Your task to perform on an android device: Open Reddit.com Image 0: 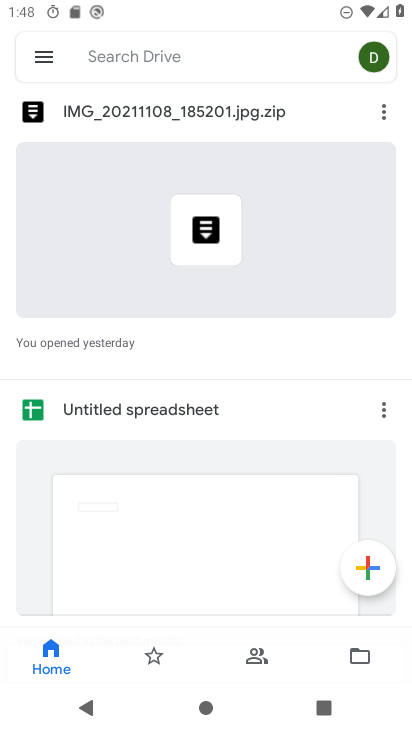
Step 0: press home button
Your task to perform on an android device: Open Reddit.com Image 1: 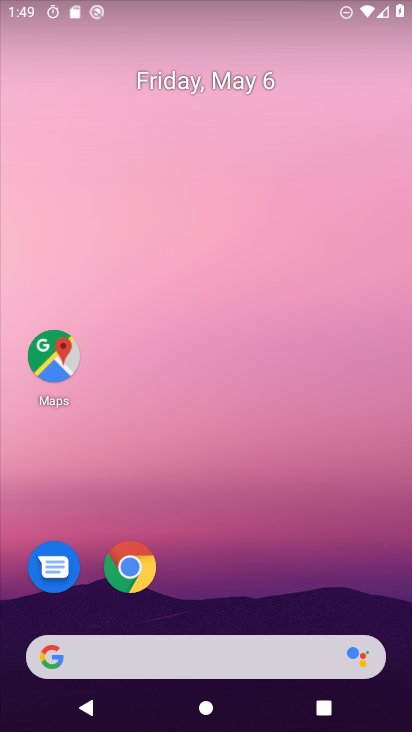
Step 1: click (134, 572)
Your task to perform on an android device: Open Reddit.com Image 2: 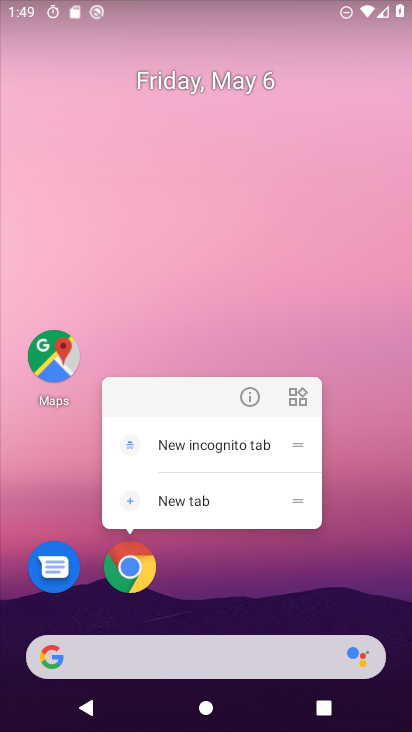
Step 2: click (139, 575)
Your task to perform on an android device: Open Reddit.com Image 3: 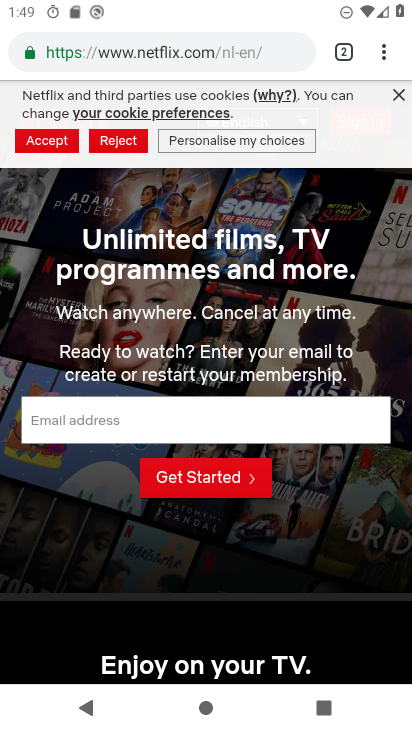
Step 3: click (124, 54)
Your task to perform on an android device: Open Reddit.com Image 4: 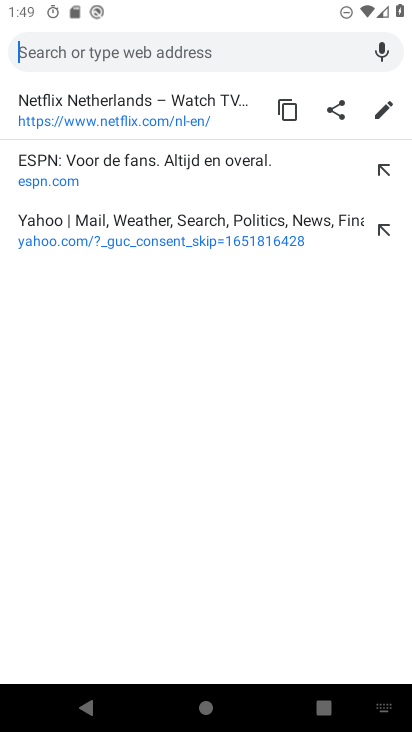
Step 4: type "reddit.com"
Your task to perform on an android device: Open Reddit.com Image 5: 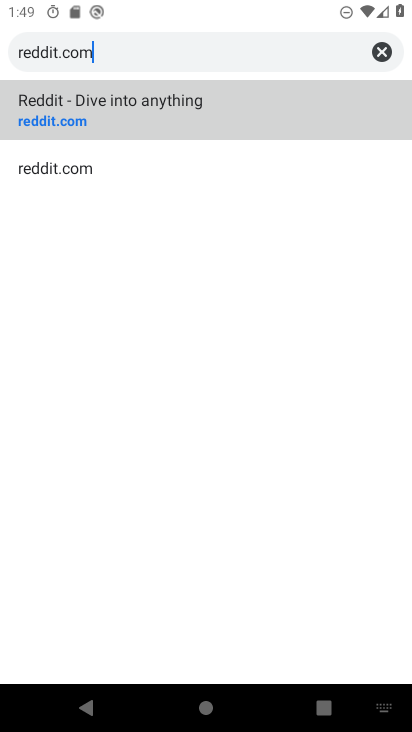
Step 5: click (37, 169)
Your task to perform on an android device: Open Reddit.com Image 6: 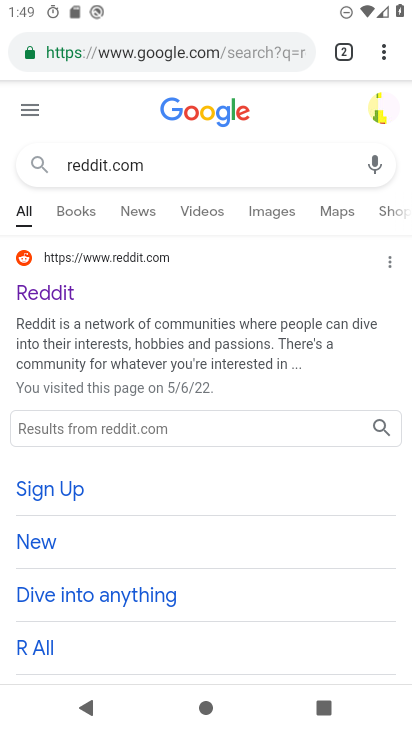
Step 6: click (41, 296)
Your task to perform on an android device: Open Reddit.com Image 7: 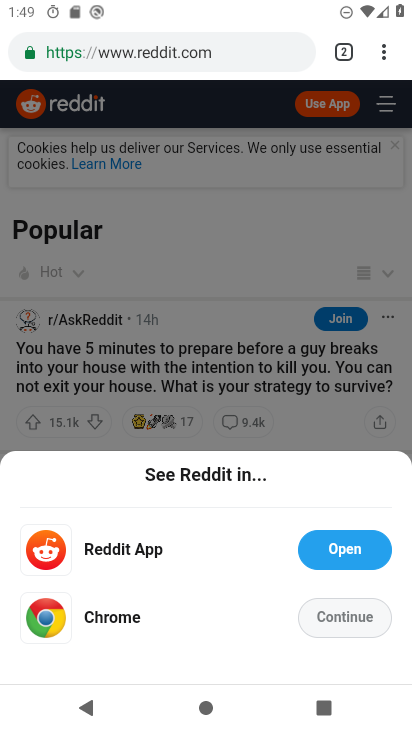
Step 7: task complete